Your task to perform on an android device: uninstall "Google Duo" Image 0: 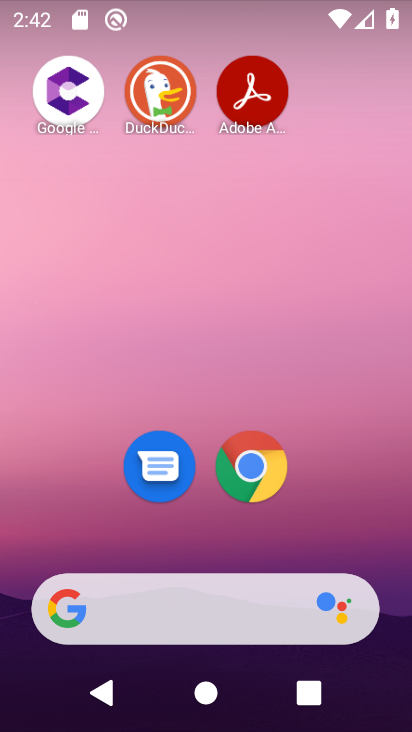
Step 0: drag from (231, 634) to (110, 11)
Your task to perform on an android device: uninstall "Google Duo" Image 1: 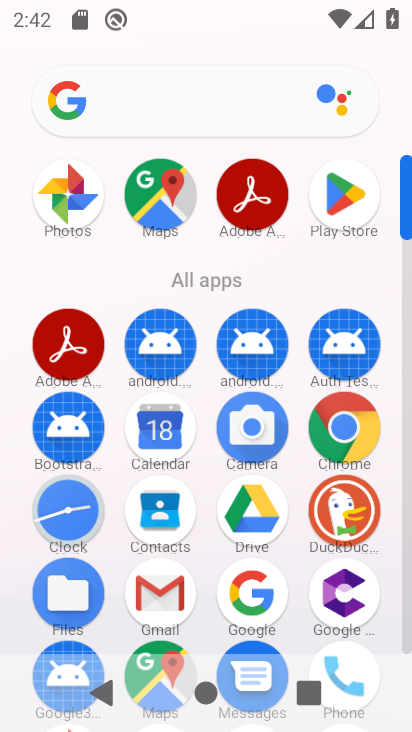
Step 1: click (361, 210)
Your task to perform on an android device: uninstall "Google Duo" Image 2: 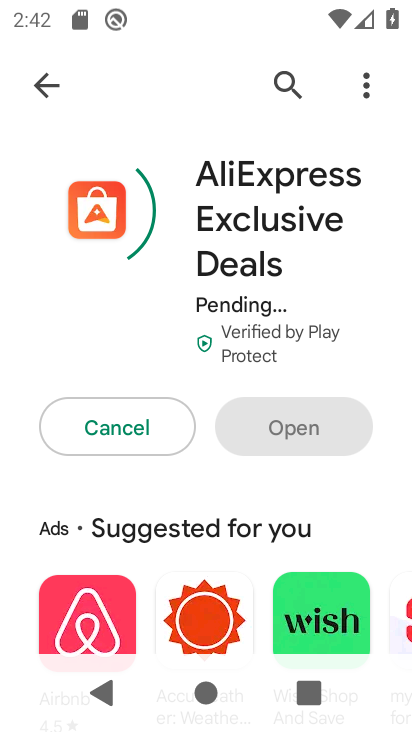
Step 2: click (289, 87)
Your task to perform on an android device: uninstall "Google Duo" Image 3: 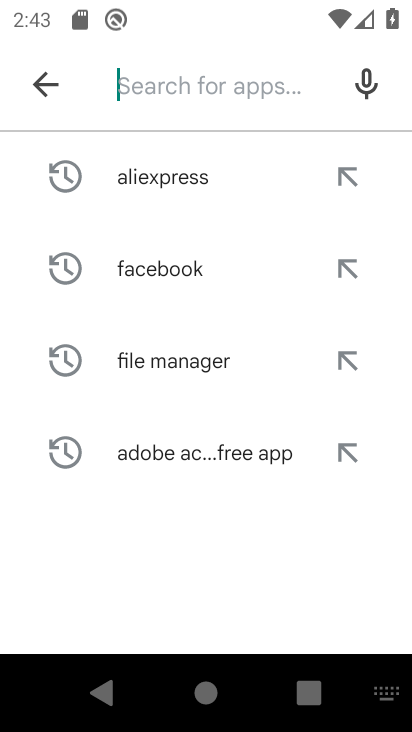
Step 3: type "google duo"
Your task to perform on an android device: uninstall "Google Duo" Image 4: 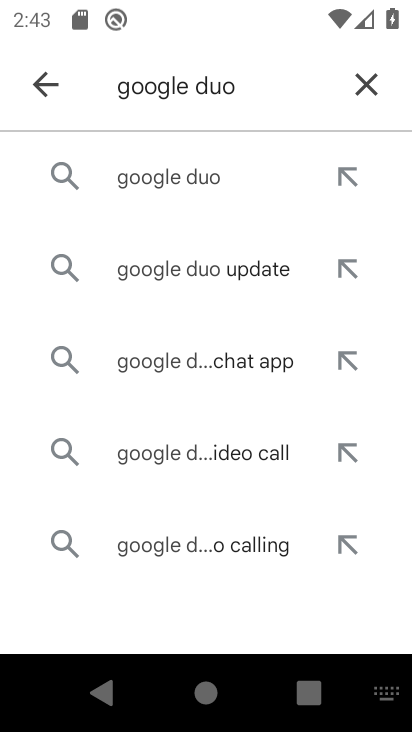
Step 4: click (211, 172)
Your task to perform on an android device: uninstall "Google Duo" Image 5: 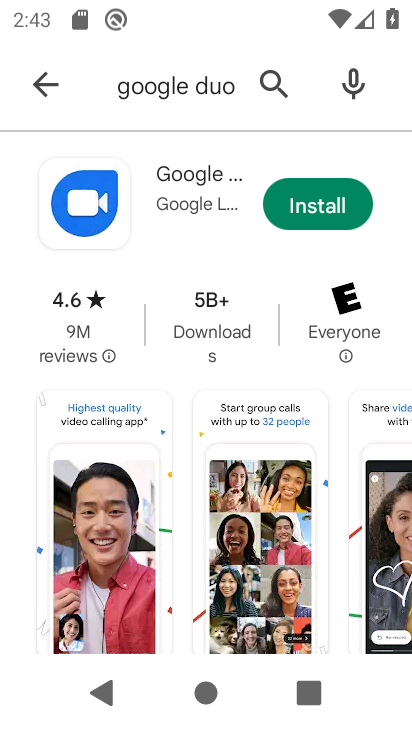
Step 5: task complete